Your task to perform on an android device: toggle pop-ups in chrome Image 0: 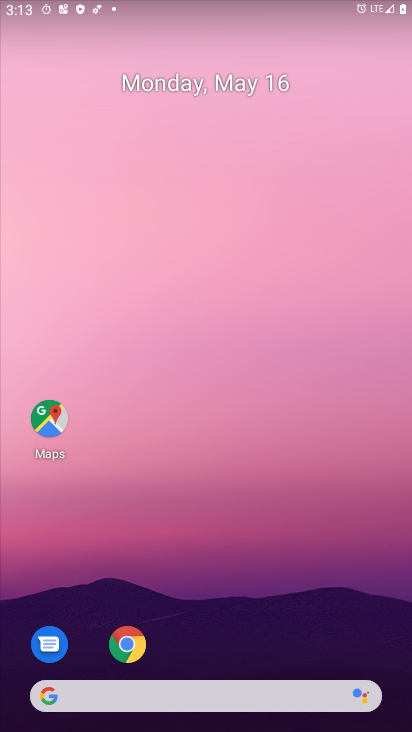
Step 0: drag from (245, 698) to (252, 165)
Your task to perform on an android device: toggle pop-ups in chrome Image 1: 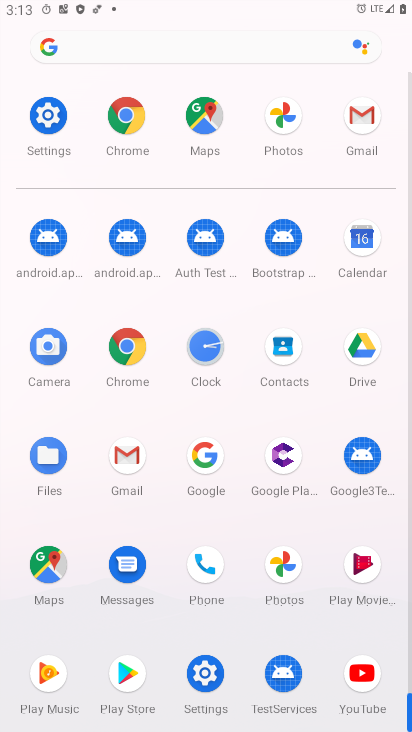
Step 1: click (134, 126)
Your task to perform on an android device: toggle pop-ups in chrome Image 2: 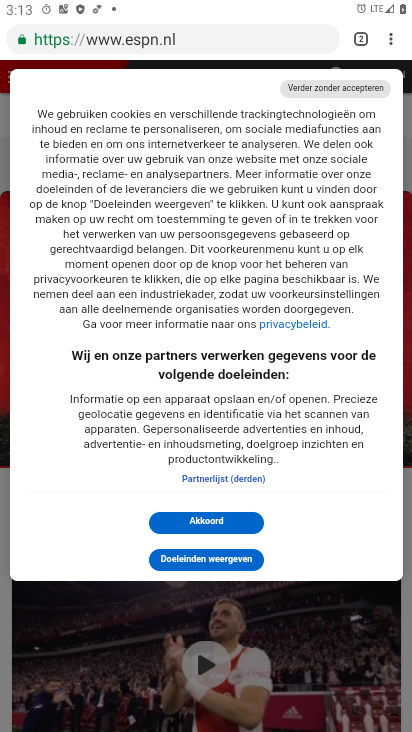
Step 2: click (394, 37)
Your task to perform on an android device: toggle pop-ups in chrome Image 3: 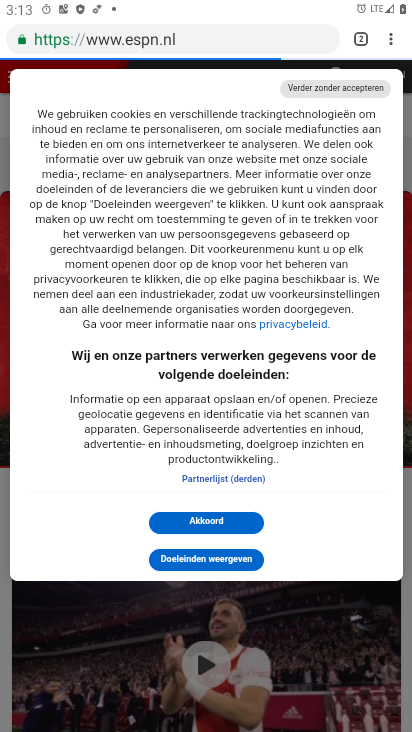
Step 3: click (395, 36)
Your task to perform on an android device: toggle pop-ups in chrome Image 4: 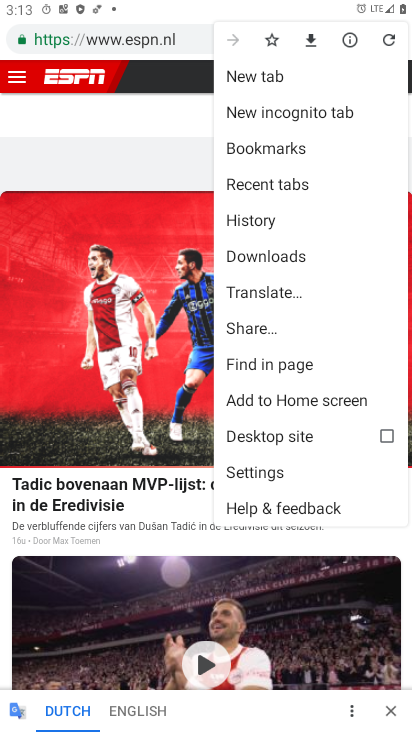
Step 4: click (314, 187)
Your task to perform on an android device: toggle pop-ups in chrome Image 5: 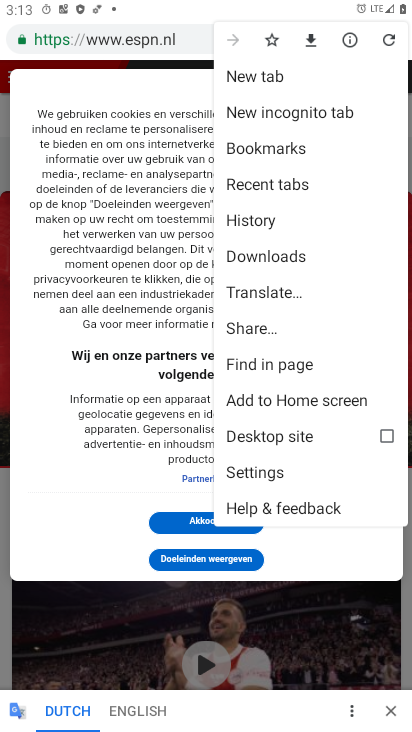
Step 5: click (271, 471)
Your task to perform on an android device: toggle pop-ups in chrome Image 6: 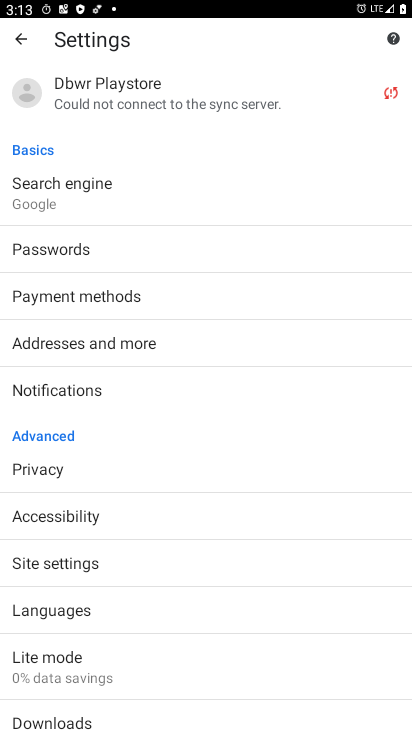
Step 6: drag from (187, 450) to (214, 315)
Your task to perform on an android device: toggle pop-ups in chrome Image 7: 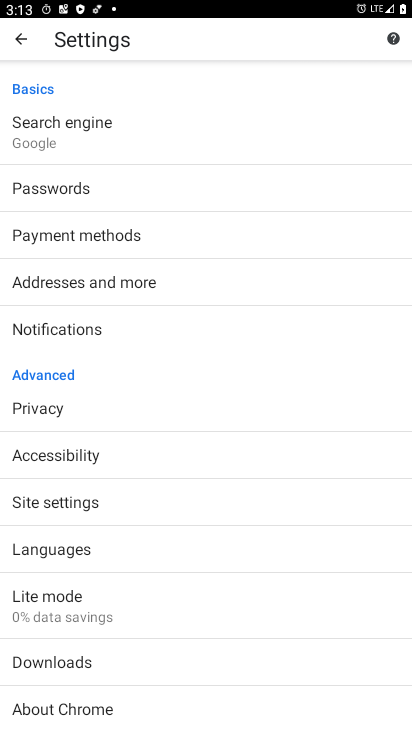
Step 7: click (62, 505)
Your task to perform on an android device: toggle pop-ups in chrome Image 8: 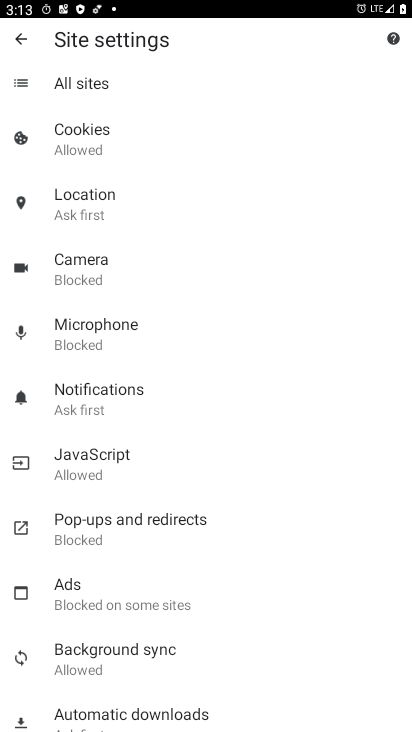
Step 8: drag from (175, 480) to (191, 209)
Your task to perform on an android device: toggle pop-ups in chrome Image 9: 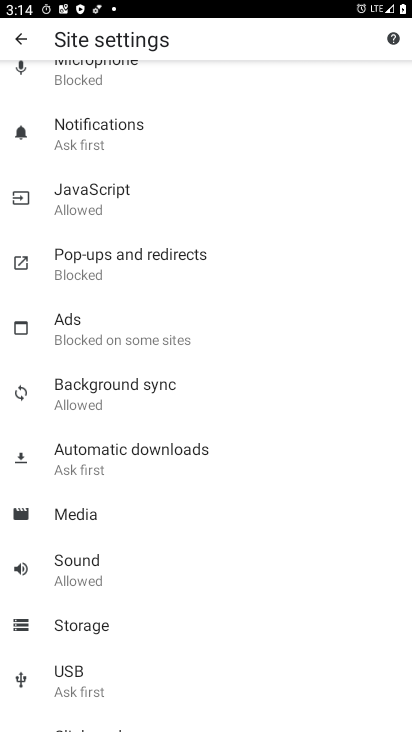
Step 9: drag from (186, 292) to (146, 540)
Your task to perform on an android device: toggle pop-ups in chrome Image 10: 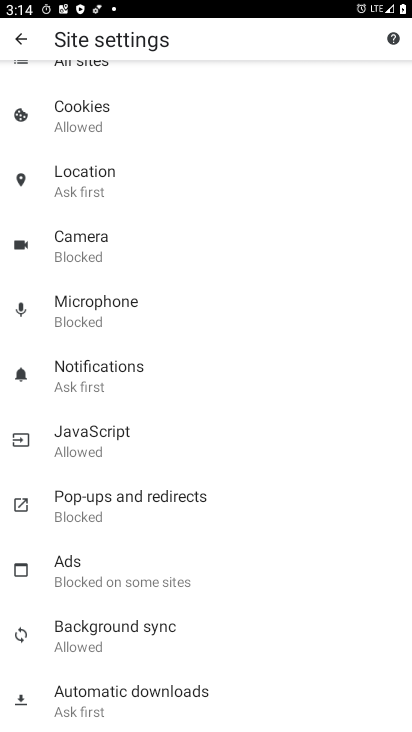
Step 10: drag from (176, 293) to (160, 529)
Your task to perform on an android device: toggle pop-ups in chrome Image 11: 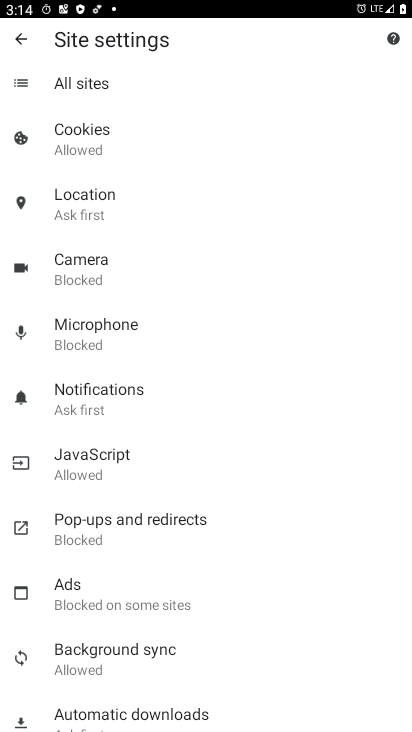
Step 11: click (202, 542)
Your task to perform on an android device: toggle pop-ups in chrome Image 12: 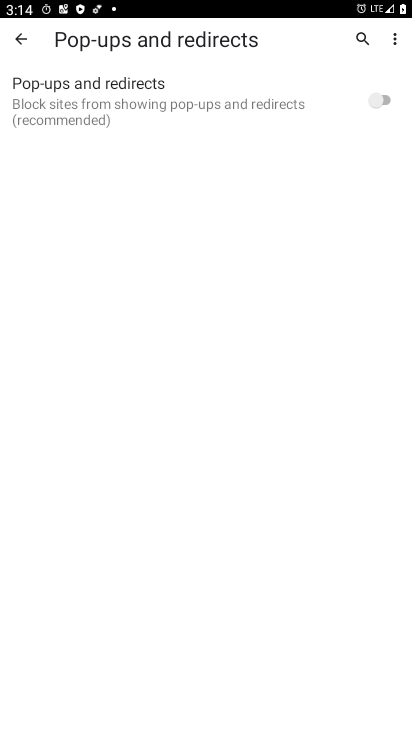
Step 12: click (380, 100)
Your task to perform on an android device: toggle pop-ups in chrome Image 13: 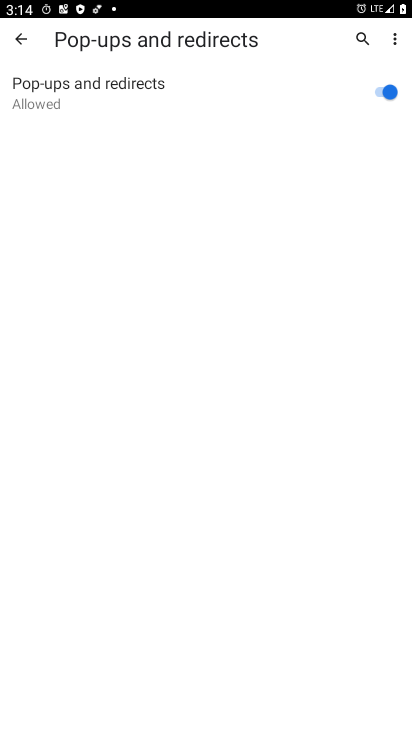
Step 13: task complete